Your task to perform on an android device: Open the calendar app, open the side menu, and click the "Day" option Image 0: 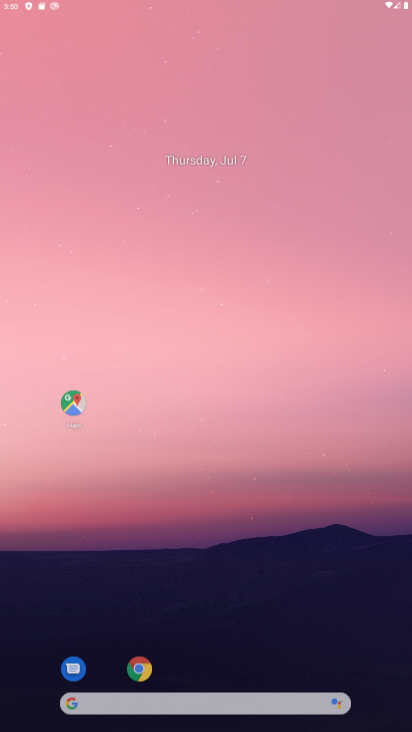
Step 0: click (246, 1)
Your task to perform on an android device: Open the calendar app, open the side menu, and click the "Day" option Image 1: 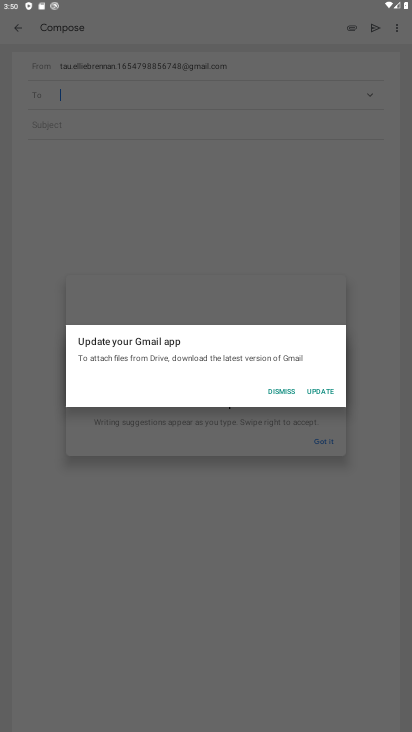
Step 1: press back button
Your task to perform on an android device: Open the calendar app, open the side menu, and click the "Day" option Image 2: 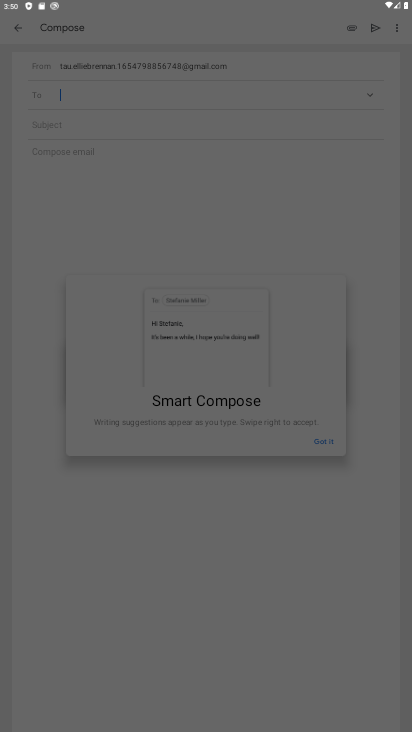
Step 2: press home button
Your task to perform on an android device: Open the calendar app, open the side menu, and click the "Day" option Image 3: 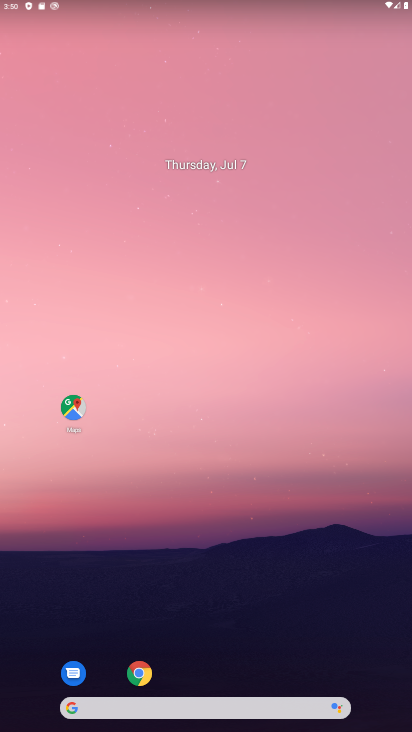
Step 3: drag from (192, 607) to (322, 0)
Your task to perform on an android device: Open the calendar app, open the side menu, and click the "Day" option Image 4: 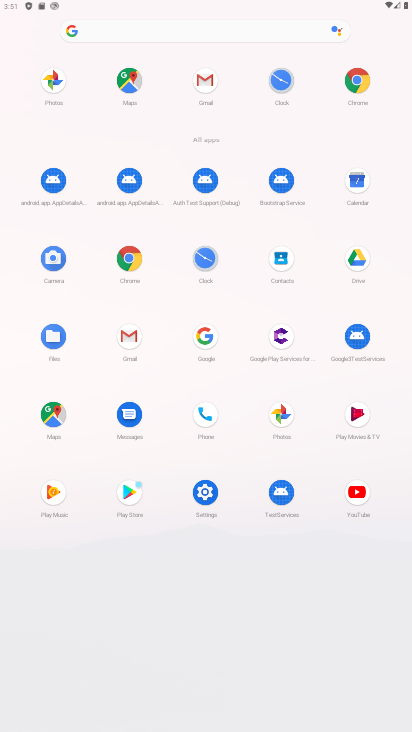
Step 4: click (348, 183)
Your task to perform on an android device: Open the calendar app, open the side menu, and click the "Day" option Image 5: 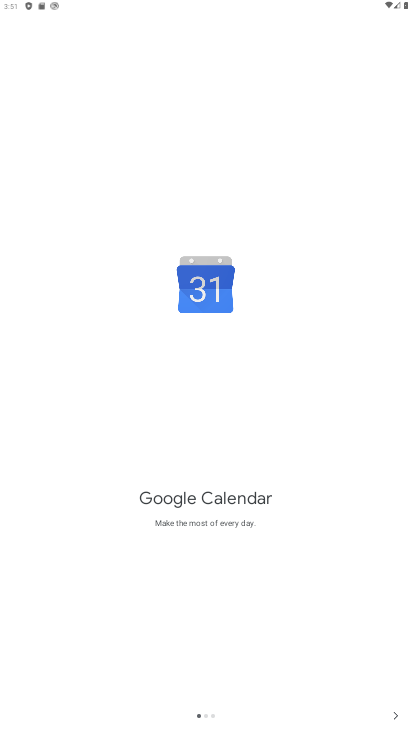
Step 5: click (392, 716)
Your task to perform on an android device: Open the calendar app, open the side menu, and click the "Day" option Image 6: 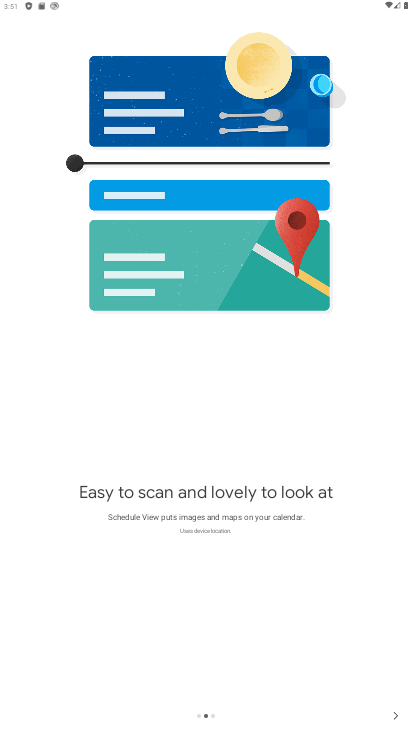
Step 6: click (397, 711)
Your task to perform on an android device: Open the calendar app, open the side menu, and click the "Day" option Image 7: 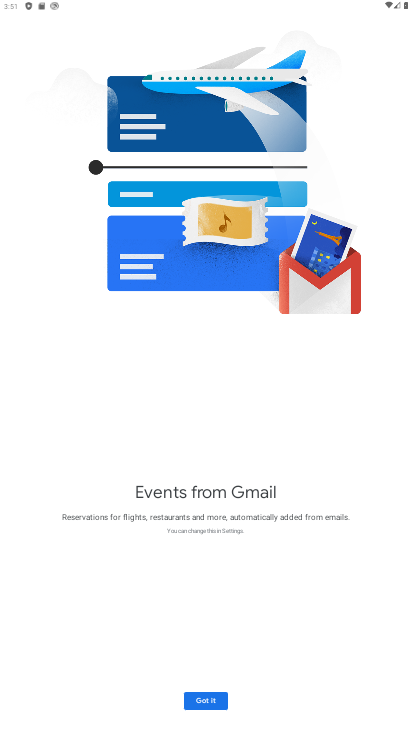
Step 7: click (217, 698)
Your task to perform on an android device: Open the calendar app, open the side menu, and click the "Day" option Image 8: 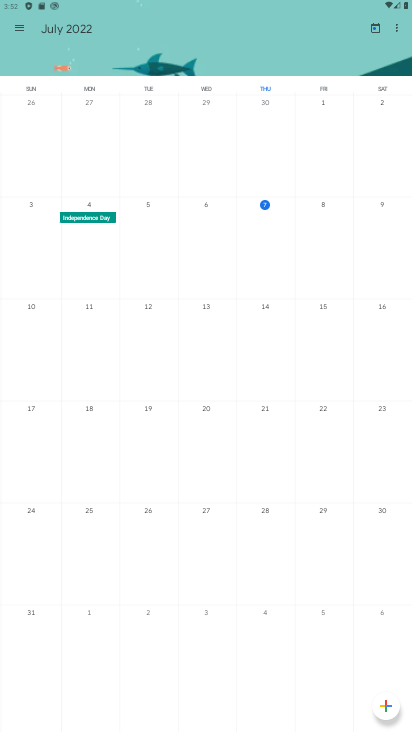
Step 8: click (13, 29)
Your task to perform on an android device: Open the calendar app, open the side menu, and click the "Day" option Image 9: 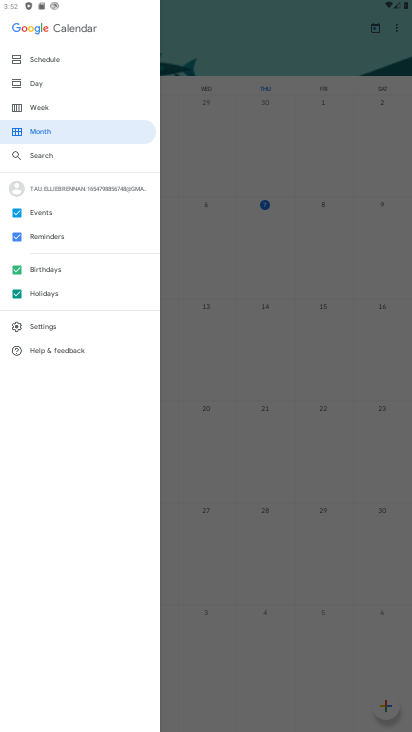
Step 9: click (42, 87)
Your task to perform on an android device: Open the calendar app, open the side menu, and click the "Day" option Image 10: 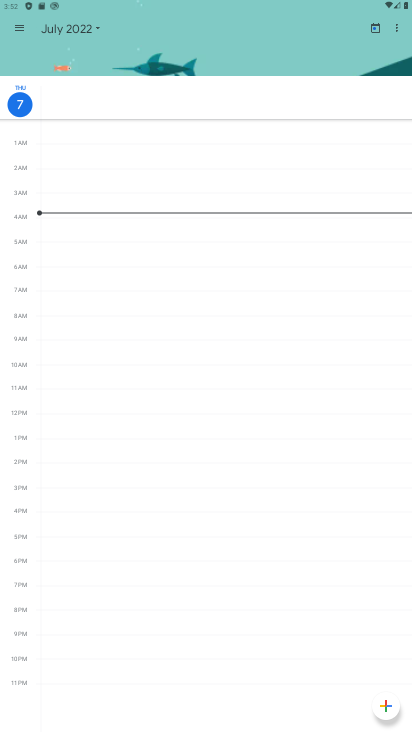
Step 10: task complete